Your task to perform on an android device: change the clock display to analog Image 0: 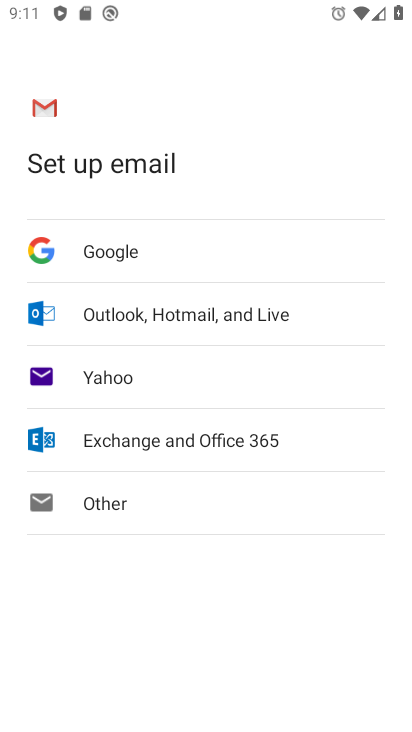
Step 0: click (400, 443)
Your task to perform on an android device: change the clock display to analog Image 1: 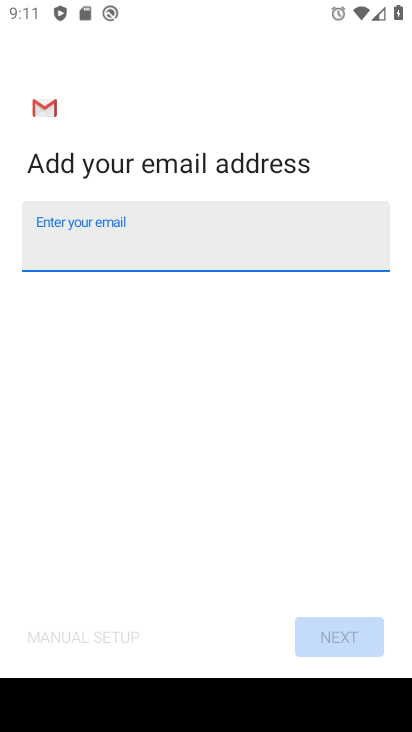
Step 1: press home button
Your task to perform on an android device: change the clock display to analog Image 2: 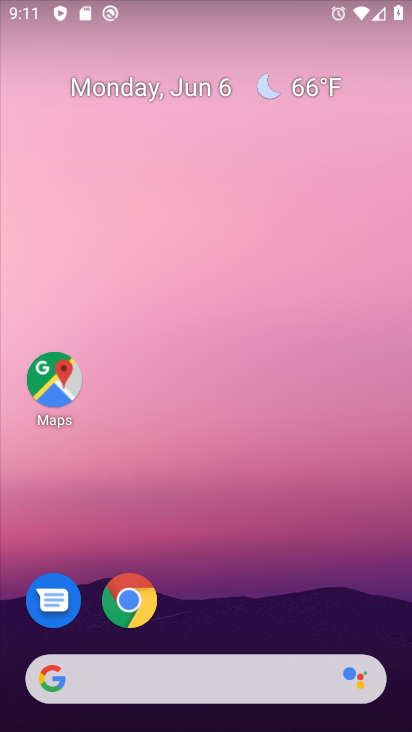
Step 2: drag from (56, 553) to (219, 291)
Your task to perform on an android device: change the clock display to analog Image 3: 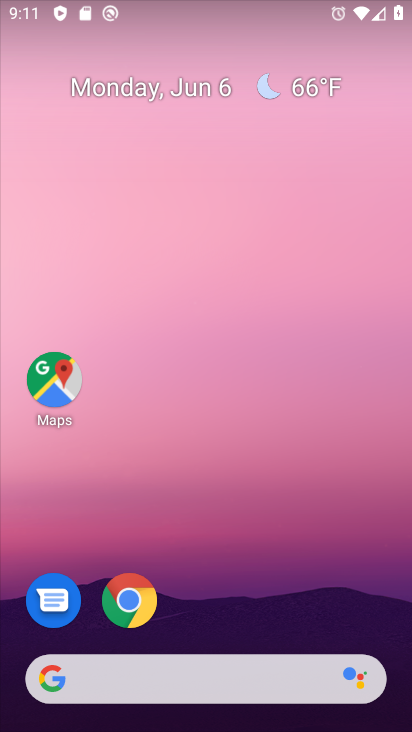
Step 3: drag from (3, 601) to (286, 126)
Your task to perform on an android device: change the clock display to analog Image 4: 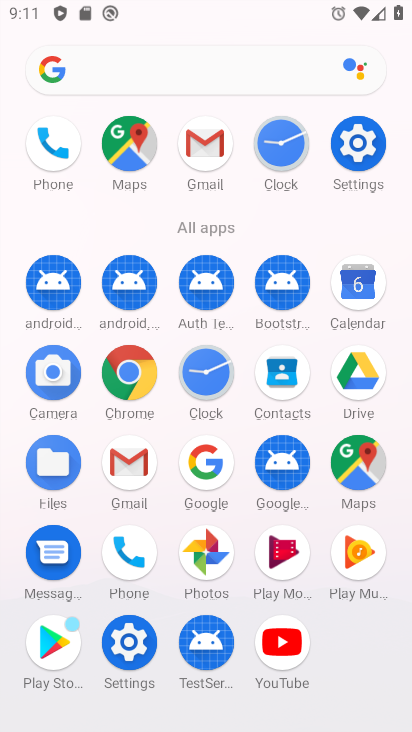
Step 4: click (196, 374)
Your task to perform on an android device: change the clock display to analog Image 5: 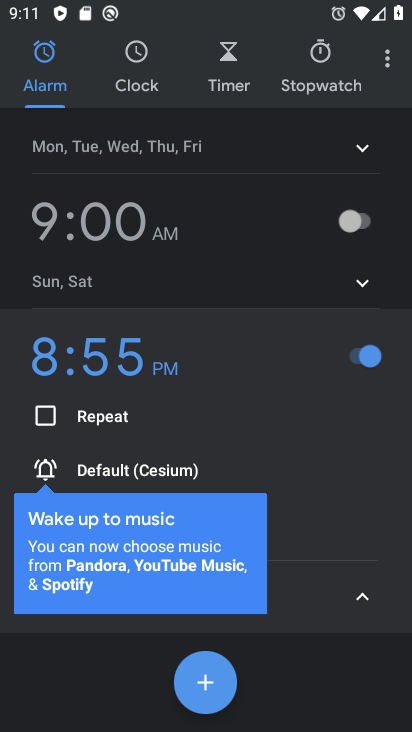
Step 5: click (389, 59)
Your task to perform on an android device: change the clock display to analog Image 6: 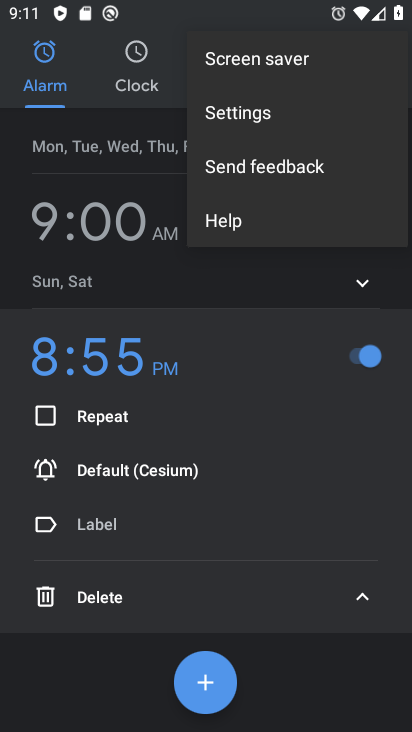
Step 6: click (303, 111)
Your task to perform on an android device: change the clock display to analog Image 7: 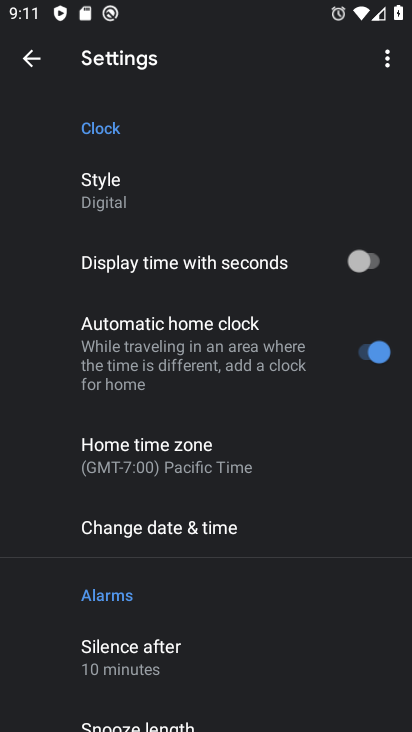
Step 7: click (186, 190)
Your task to perform on an android device: change the clock display to analog Image 8: 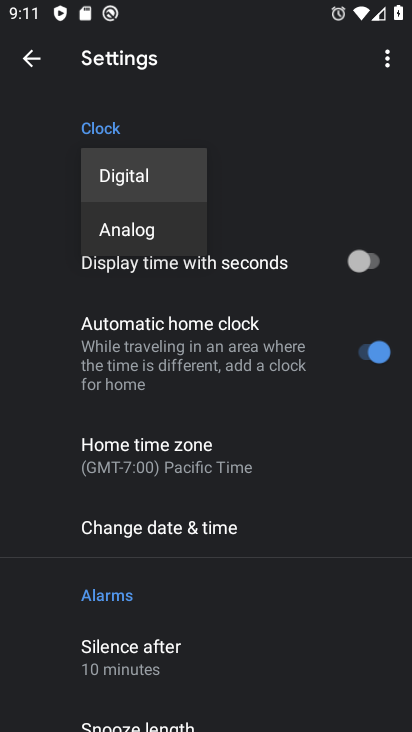
Step 8: click (160, 221)
Your task to perform on an android device: change the clock display to analog Image 9: 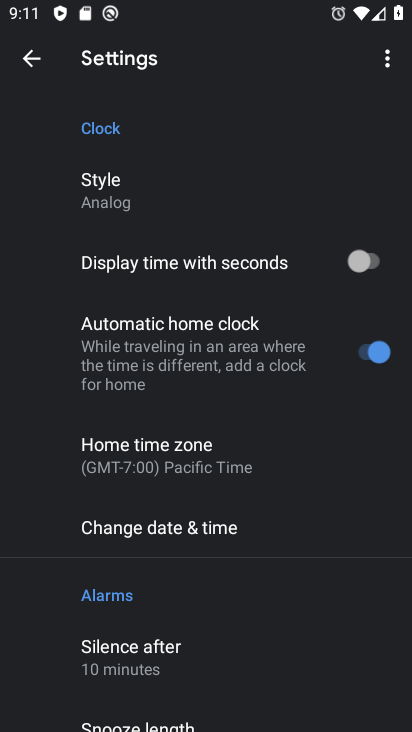
Step 9: task complete